Your task to perform on an android device: turn on priority inbox in the gmail app Image 0: 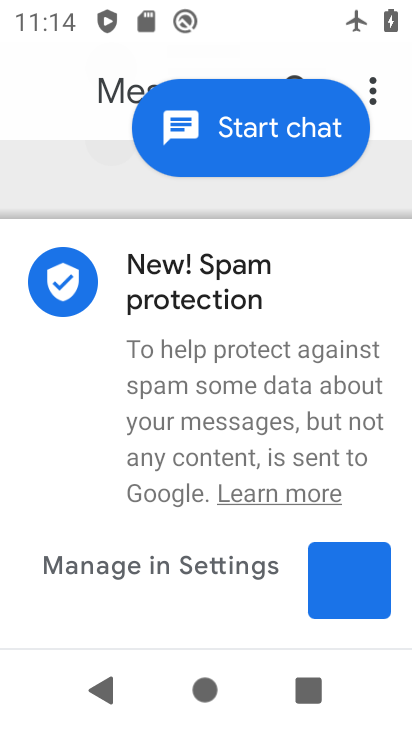
Step 0: press home button
Your task to perform on an android device: turn on priority inbox in the gmail app Image 1: 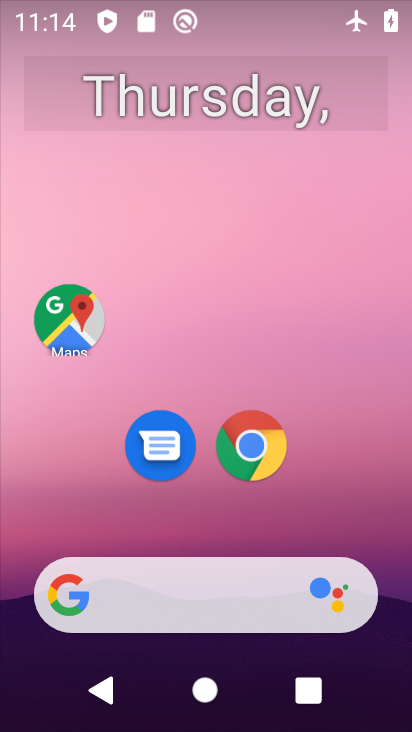
Step 1: drag from (207, 470) to (213, 65)
Your task to perform on an android device: turn on priority inbox in the gmail app Image 2: 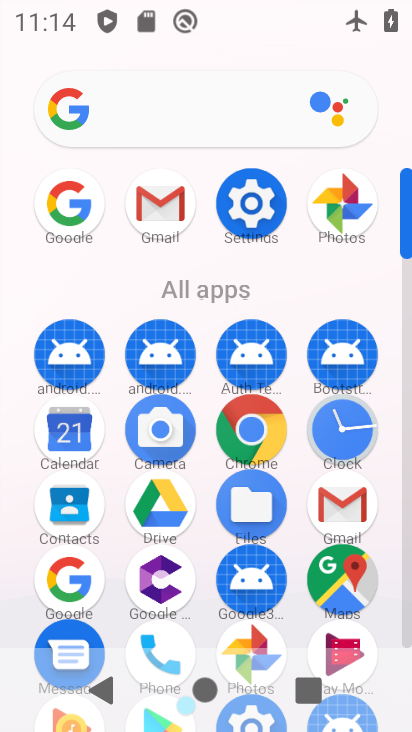
Step 2: click (166, 202)
Your task to perform on an android device: turn on priority inbox in the gmail app Image 3: 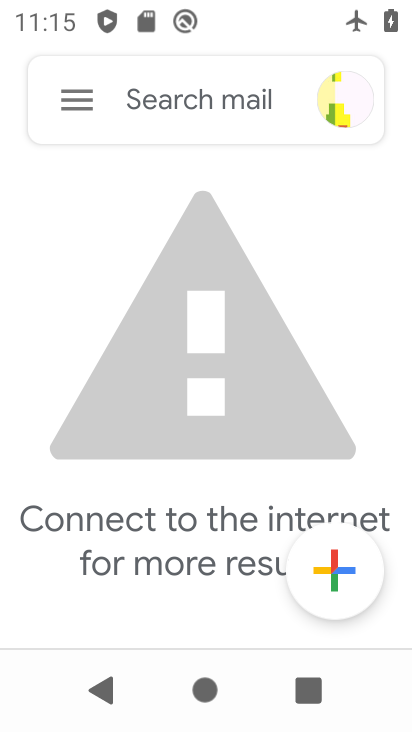
Step 3: click (79, 94)
Your task to perform on an android device: turn on priority inbox in the gmail app Image 4: 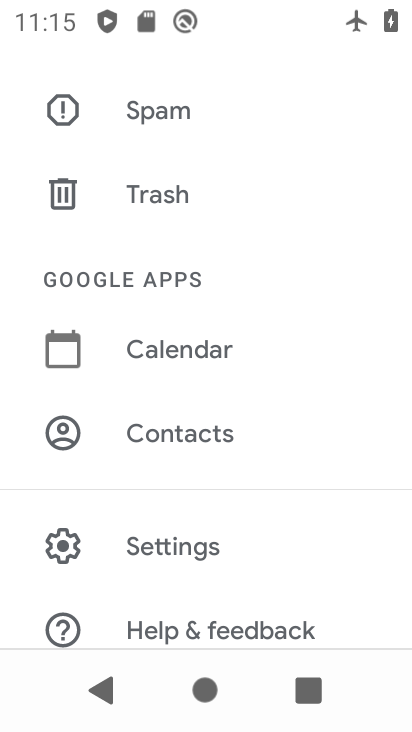
Step 4: click (133, 545)
Your task to perform on an android device: turn on priority inbox in the gmail app Image 5: 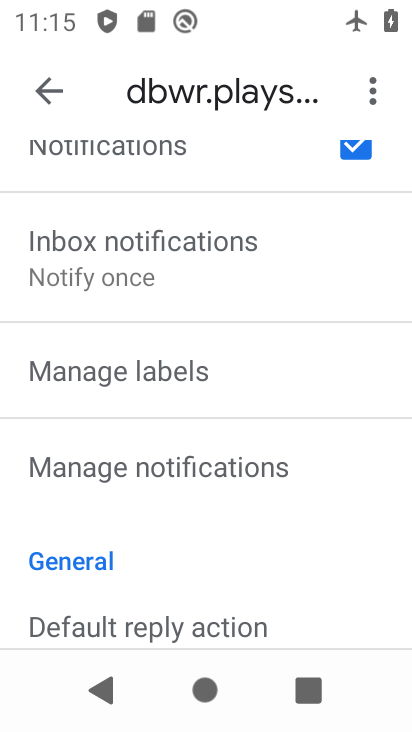
Step 5: drag from (174, 231) to (178, 458)
Your task to perform on an android device: turn on priority inbox in the gmail app Image 6: 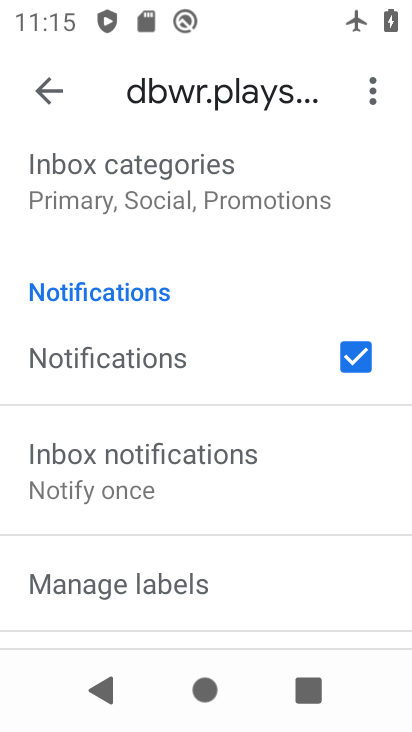
Step 6: drag from (188, 234) to (193, 535)
Your task to perform on an android device: turn on priority inbox in the gmail app Image 7: 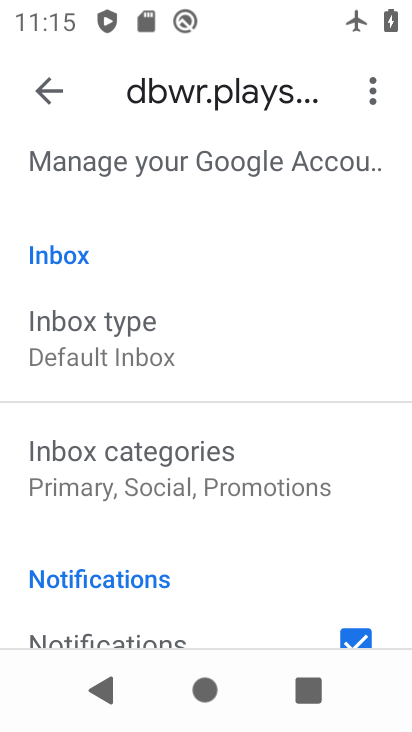
Step 7: click (147, 341)
Your task to perform on an android device: turn on priority inbox in the gmail app Image 8: 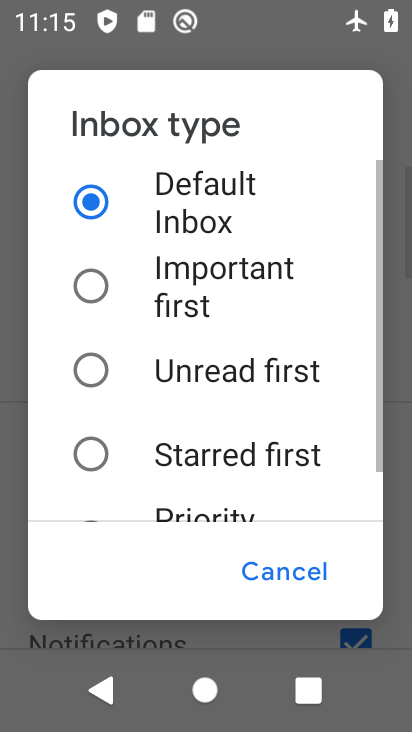
Step 8: drag from (193, 470) to (211, 317)
Your task to perform on an android device: turn on priority inbox in the gmail app Image 9: 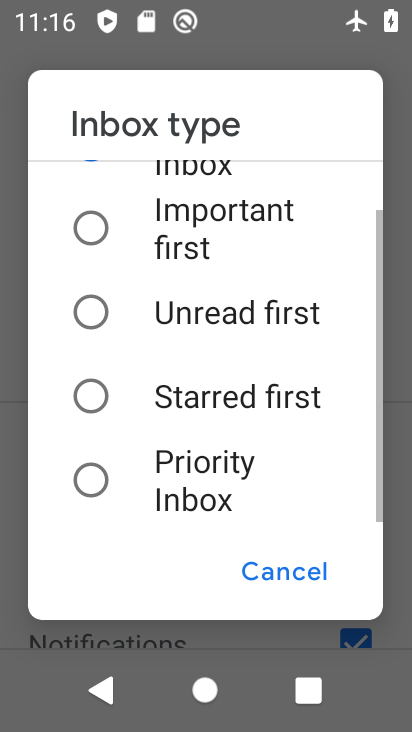
Step 9: click (154, 466)
Your task to perform on an android device: turn on priority inbox in the gmail app Image 10: 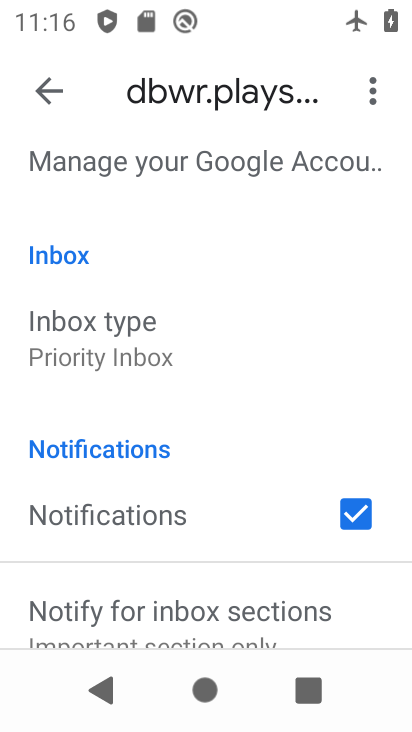
Step 10: task complete